Your task to perform on an android device: toggle airplane mode Image 0: 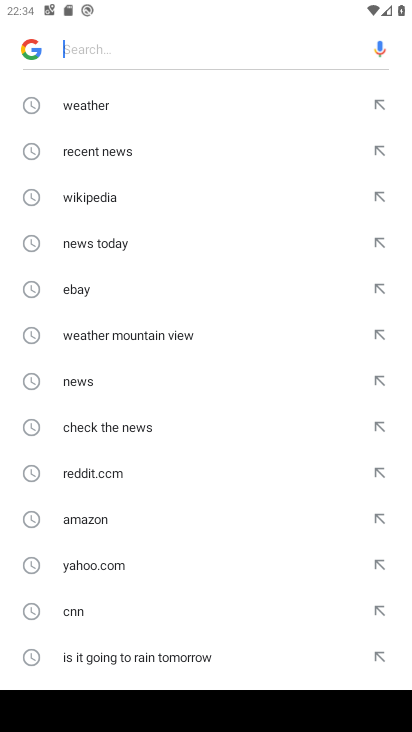
Step 0: press home button
Your task to perform on an android device: toggle airplane mode Image 1: 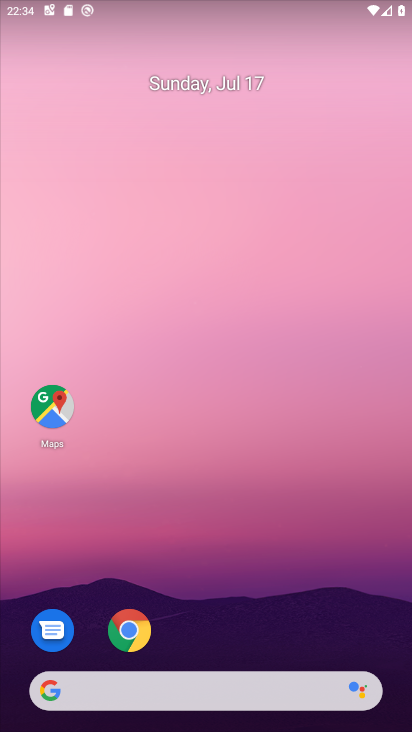
Step 1: drag from (236, 646) to (249, 38)
Your task to perform on an android device: toggle airplane mode Image 2: 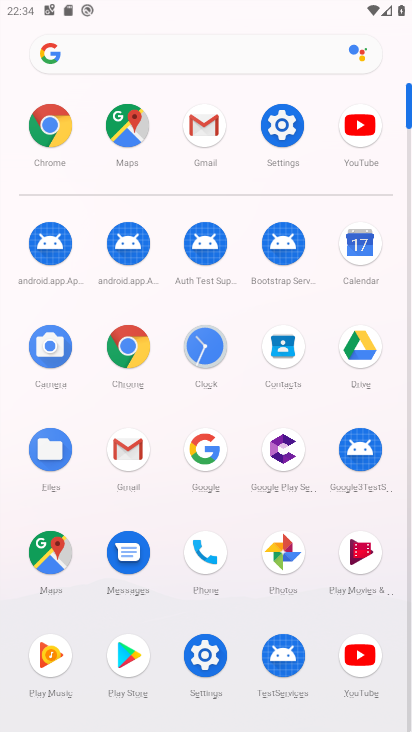
Step 2: click (200, 665)
Your task to perform on an android device: toggle airplane mode Image 3: 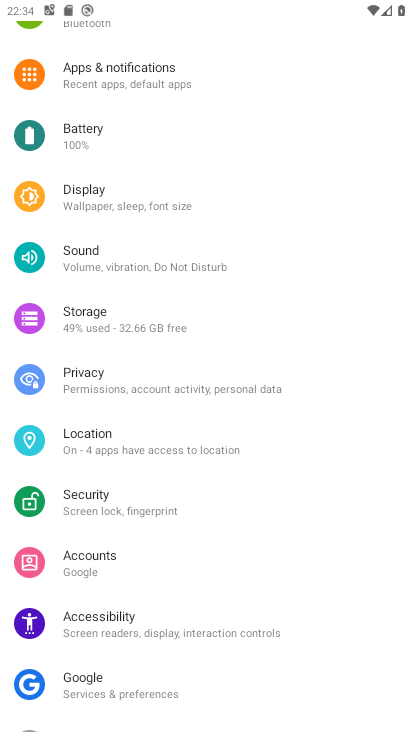
Step 3: drag from (151, 146) to (225, 731)
Your task to perform on an android device: toggle airplane mode Image 4: 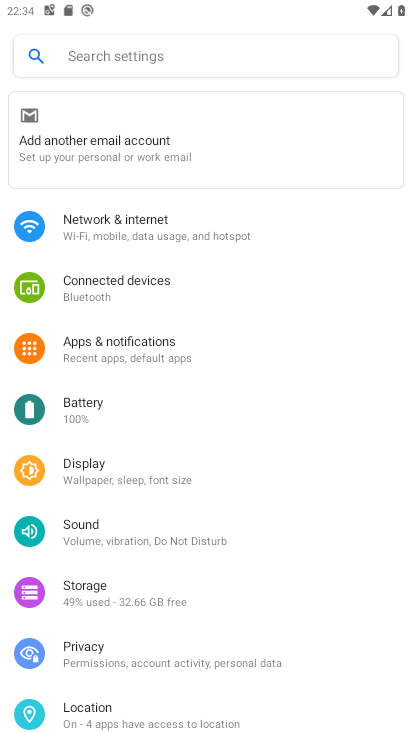
Step 4: click (141, 227)
Your task to perform on an android device: toggle airplane mode Image 5: 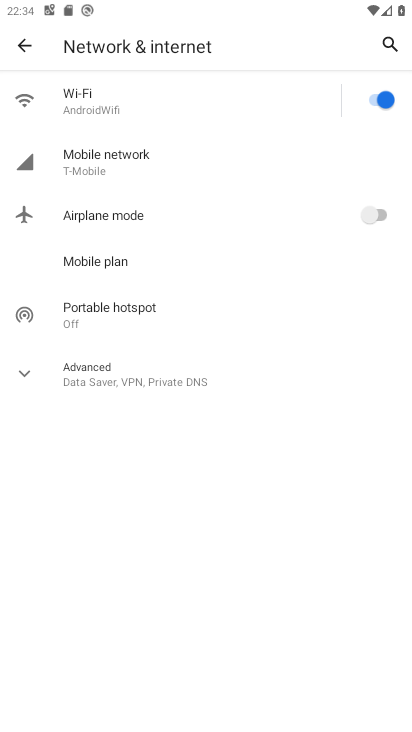
Step 5: click (378, 217)
Your task to perform on an android device: toggle airplane mode Image 6: 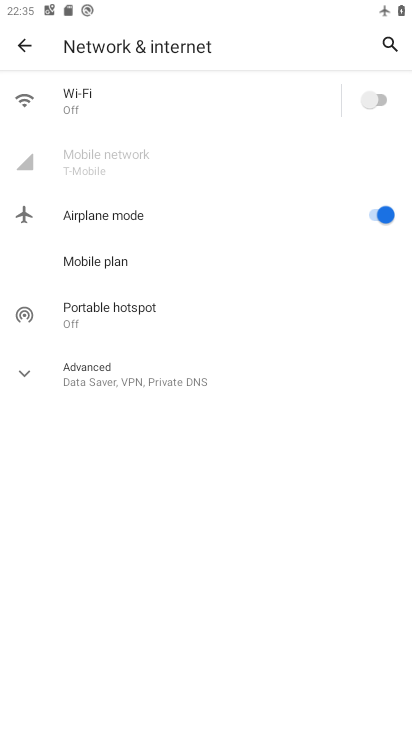
Step 6: task complete